Your task to perform on an android device: View the shopping cart on walmart.com. Add macbook pro to the cart on walmart.com, then select checkout. Image 0: 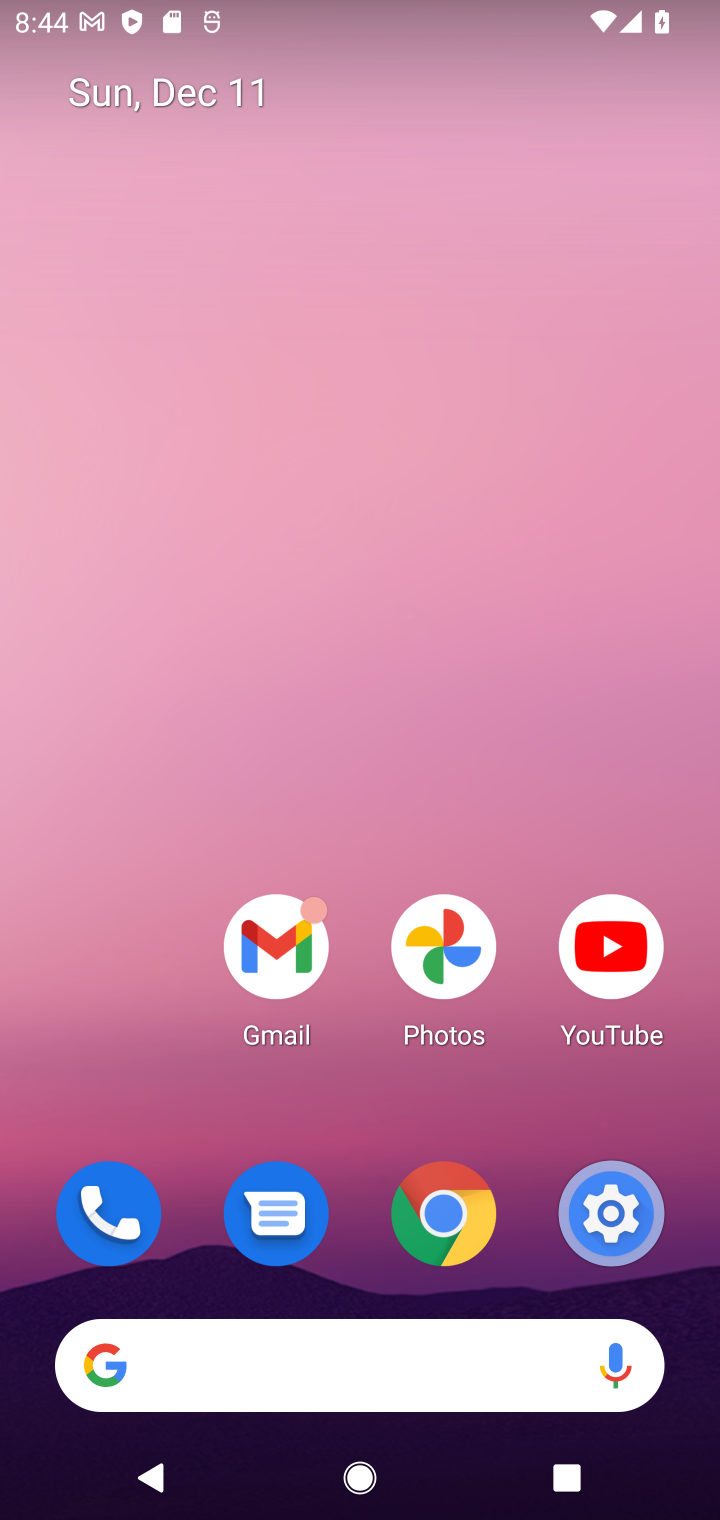
Step 0: click (445, 1359)
Your task to perform on an android device: View the shopping cart on walmart.com. Add macbook pro to the cart on walmart.com, then select checkout. Image 1: 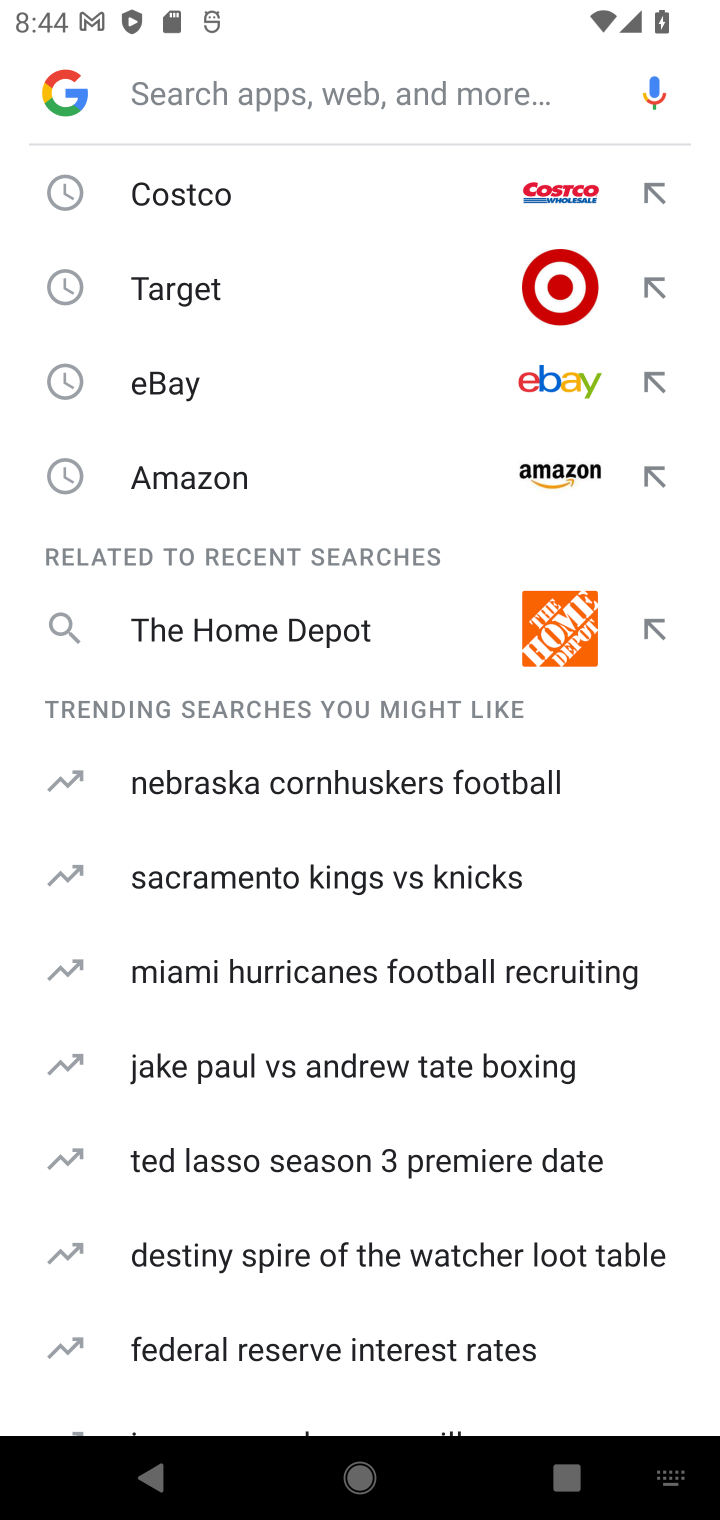
Step 1: type "walmart"
Your task to perform on an android device: View the shopping cart on walmart.com. Add macbook pro to the cart on walmart.com, then select checkout. Image 2: 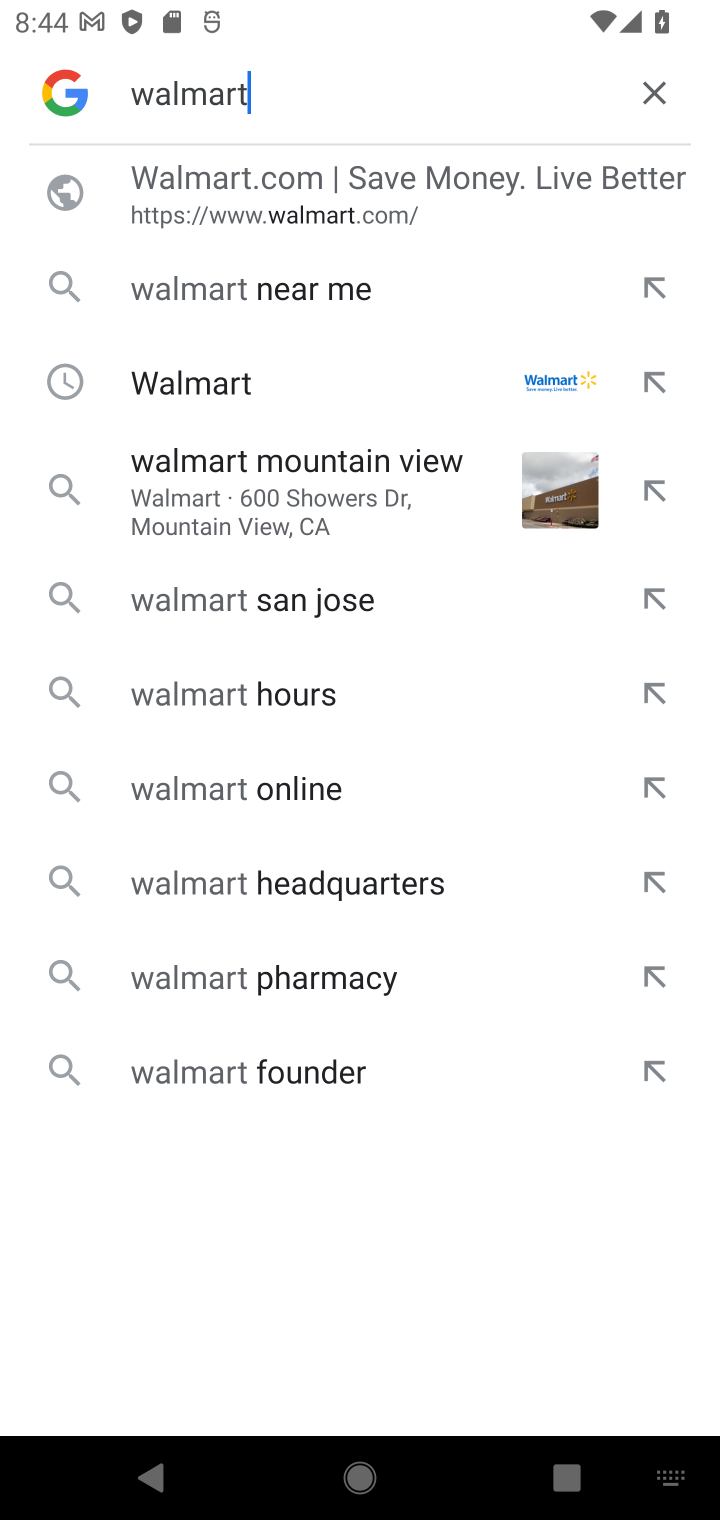
Step 2: click (295, 224)
Your task to perform on an android device: View the shopping cart on walmart.com. Add macbook pro to the cart on walmart.com, then select checkout. Image 3: 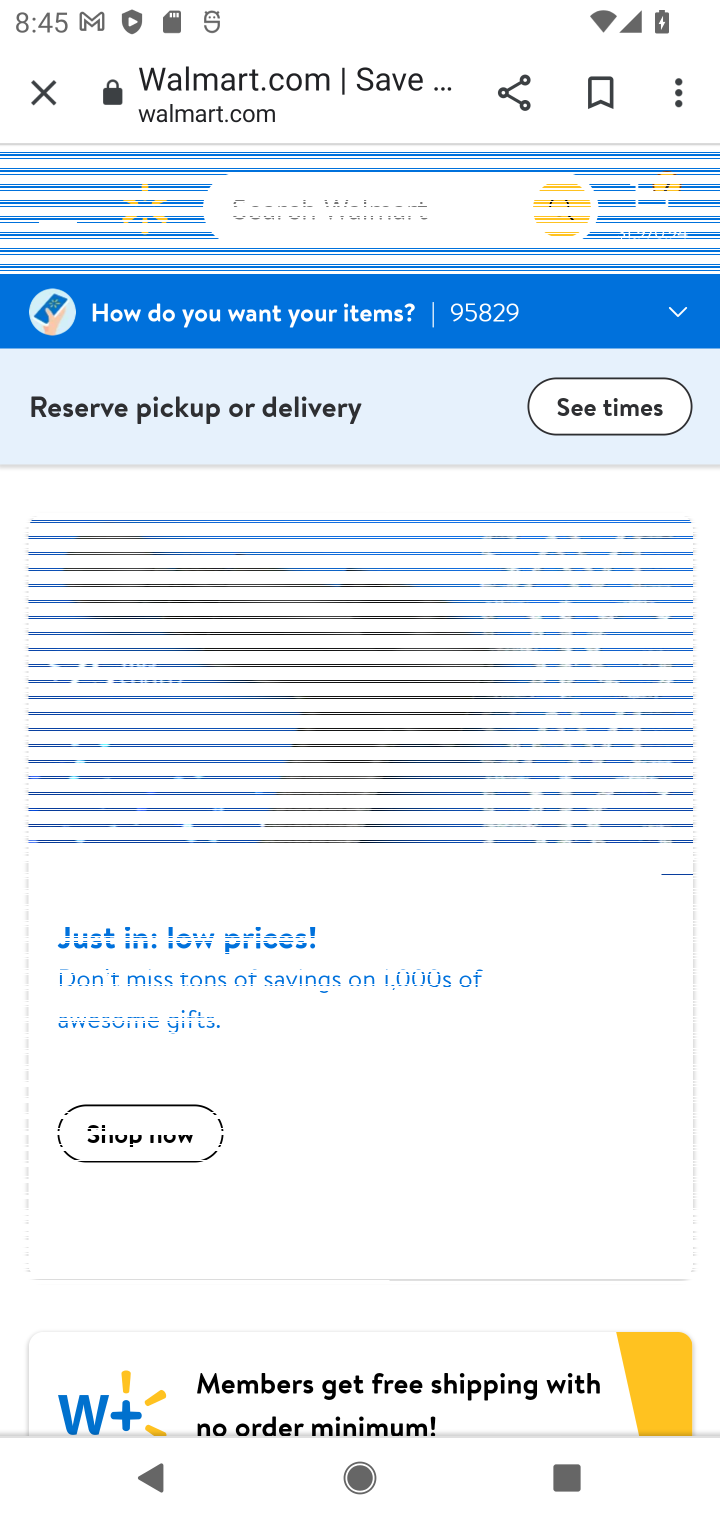
Step 3: task complete